Your task to perform on an android device: toggle translation in the chrome app Image 0: 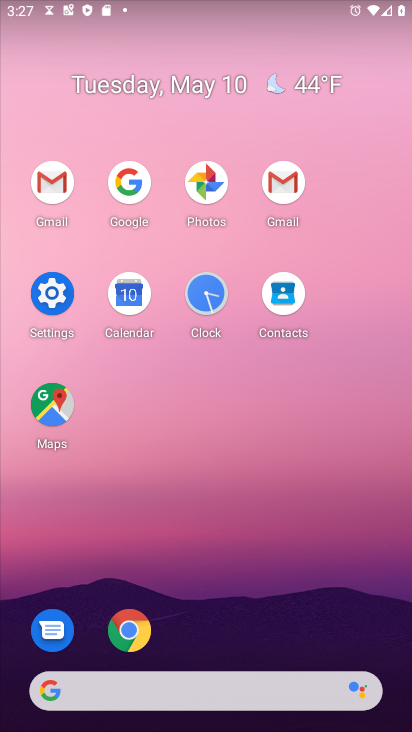
Step 0: click (123, 641)
Your task to perform on an android device: toggle translation in the chrome app Image 1: 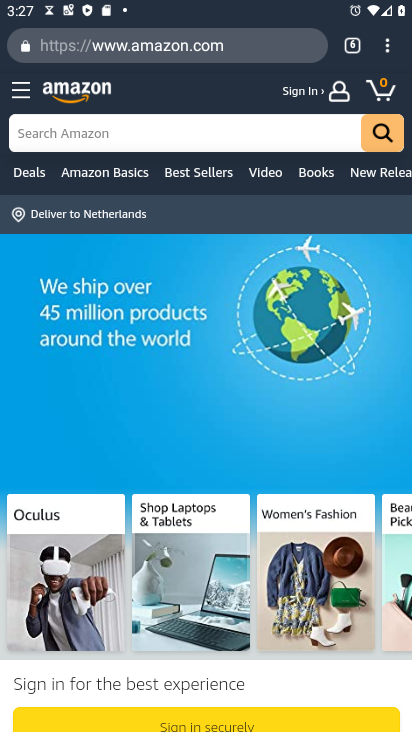
Step 1: click (386, 44)
Your task to perform on an android device: toggle translation in the chrome app Image 2: 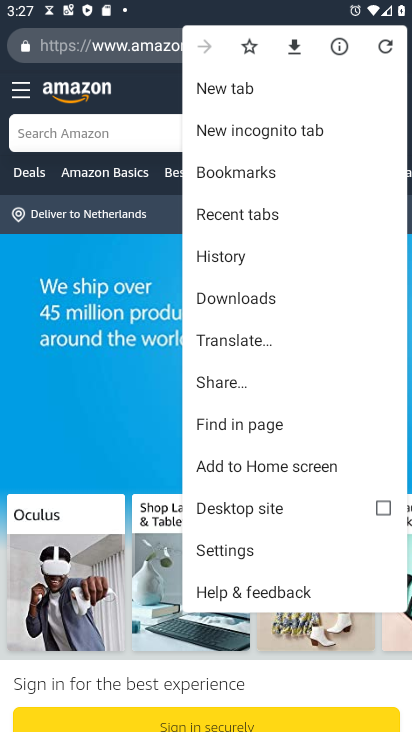
Step 2: click (221, 550)
Your task to perform on an android device: toggle translation in the chrome app Image 3: 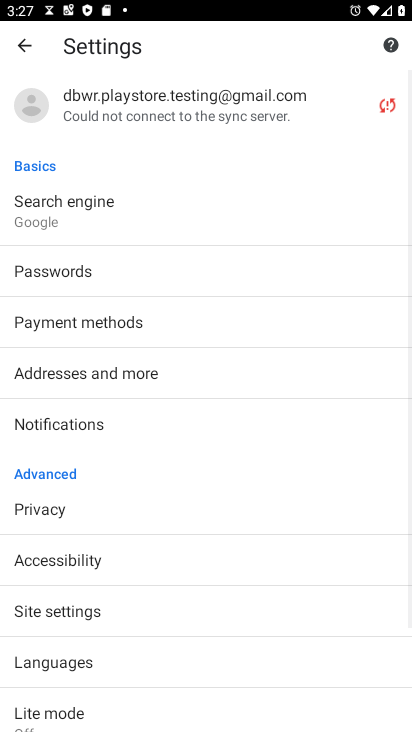
Step 3: click (101, 674)
Your task to perform on an android device: toggle translation in the chrome app Image 4: 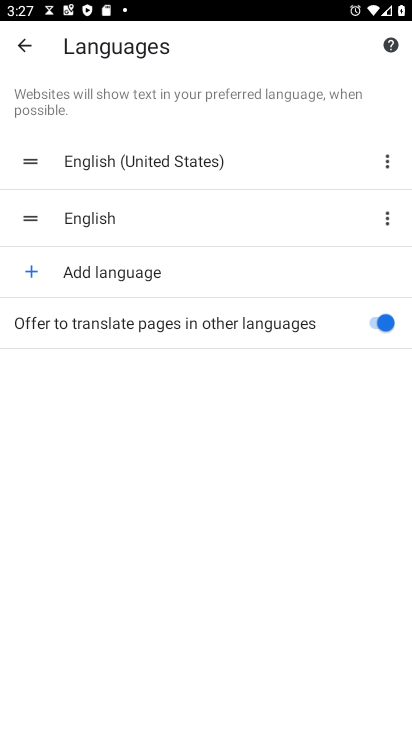
Step 4: click (383, 329)
Your task to perform on an android device: toggle translation in the chrome app Image 5: 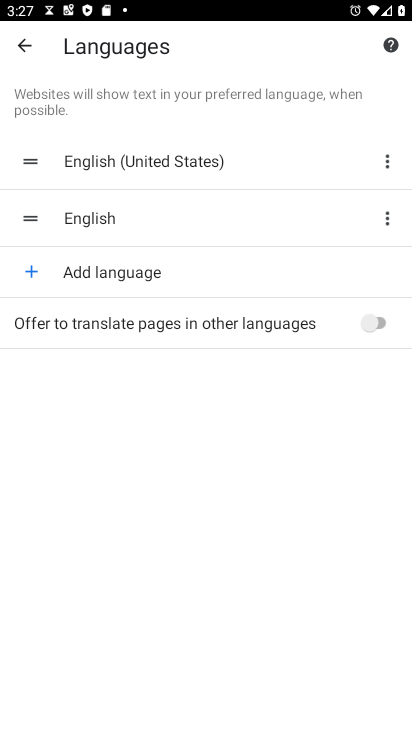
Step 5: task complete